Your task to perform on an android device: make emails show in primary in the gmail app Image 0: 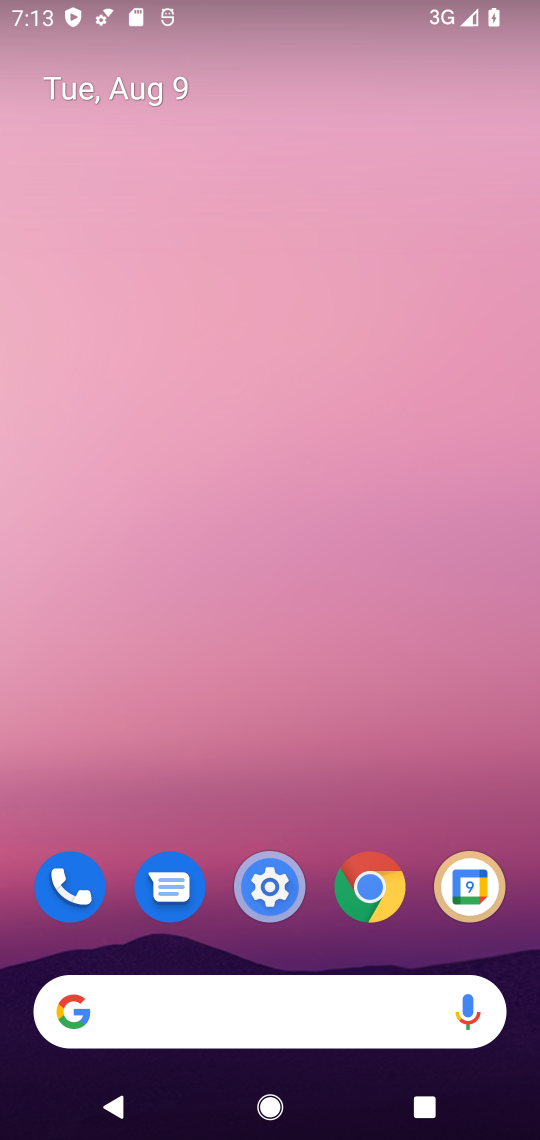
Step 0: drag from (301, 817) to (314, 0)
Your task to perform on an android device: make emails show in primary in the gmail app Image 1: 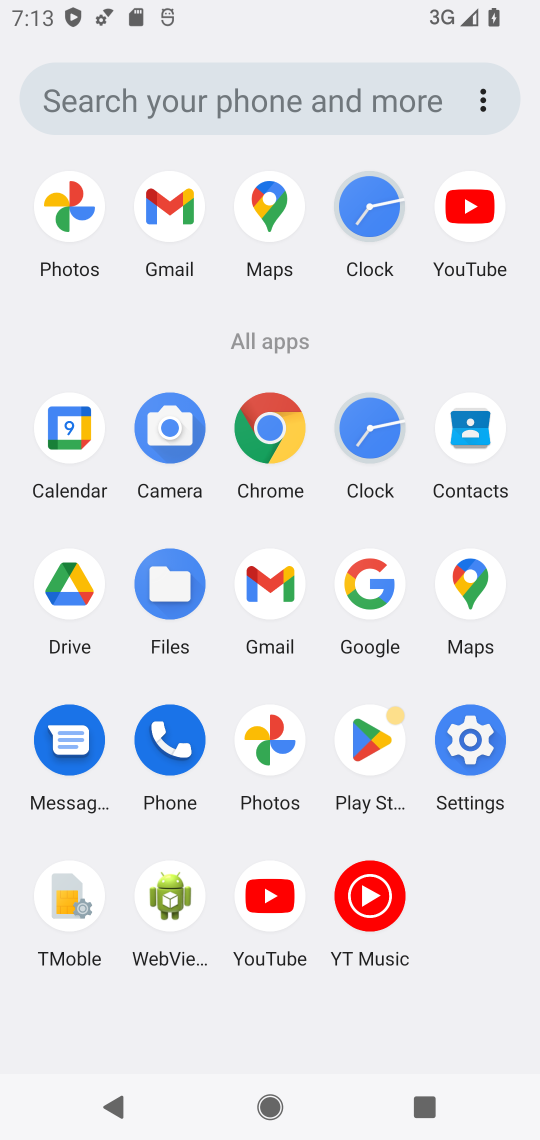
Step 1: click (163, 207)
Your task to perform on an android device: make emails show in primary in the gmail app Image 2: 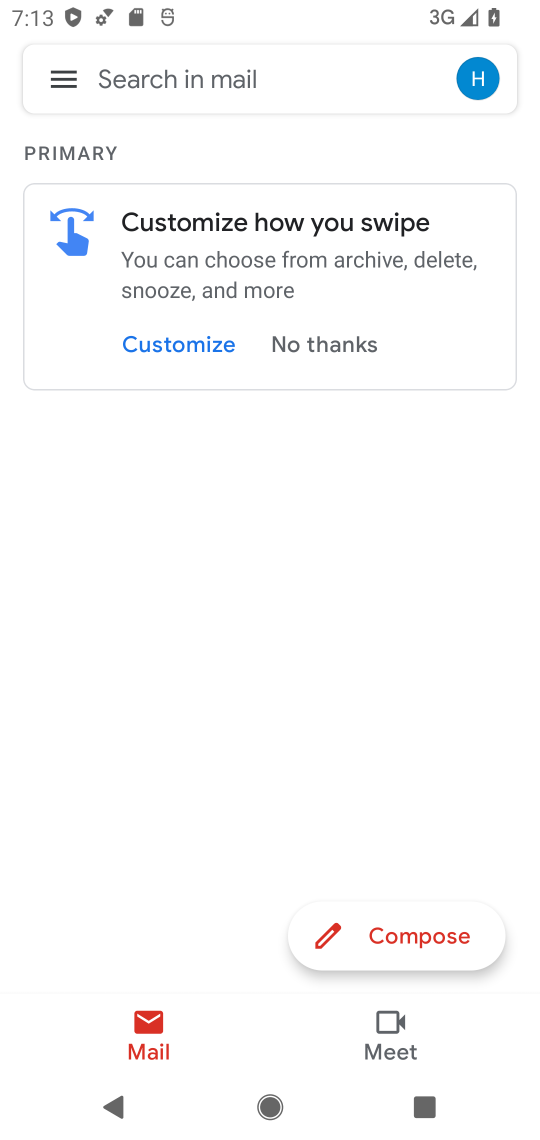
Step 2: click (76, 79)
Your task to perform on an android device: make emails show in primary in the gmail app Image 3: 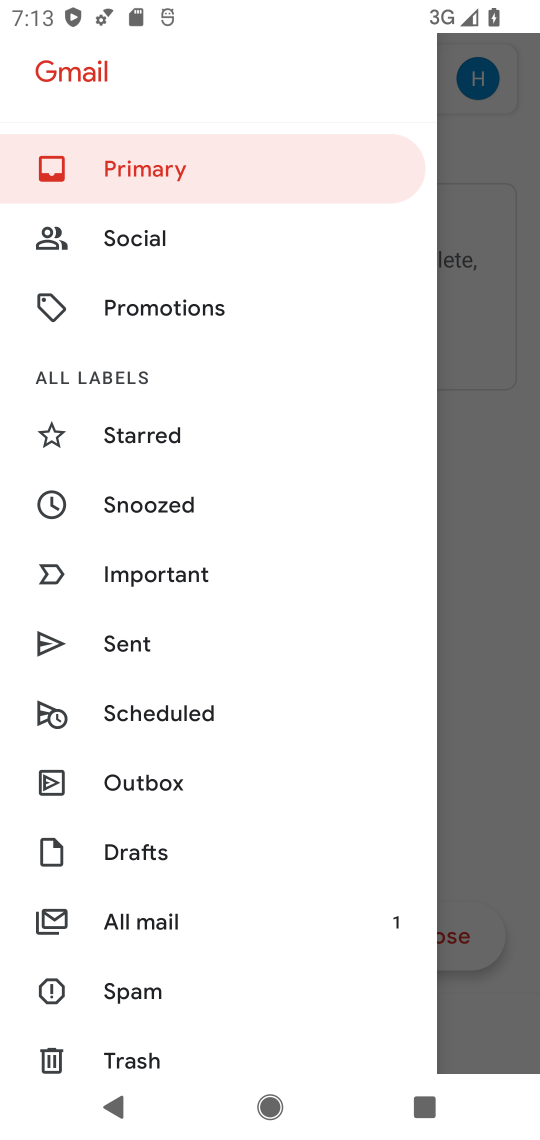
Step 3: drag from (218, 699) to (241, 2)
Your task to perform on an android device: make emails show in primary in the gmail app Image 4: 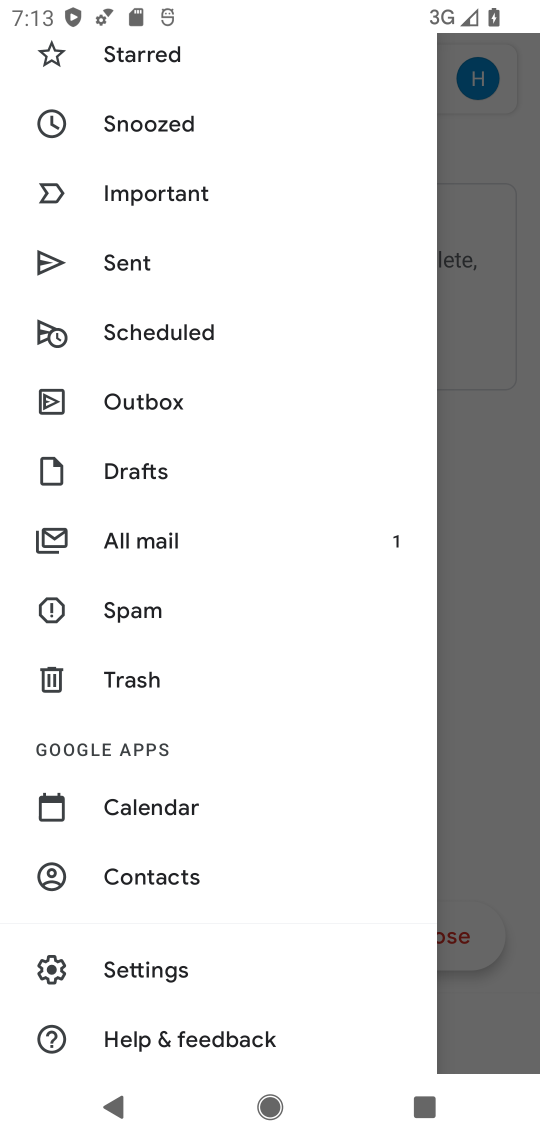
Step 4: click (150, 959)
Your task to perform on an android device: make emails show in primary in the gmail app Image 5: 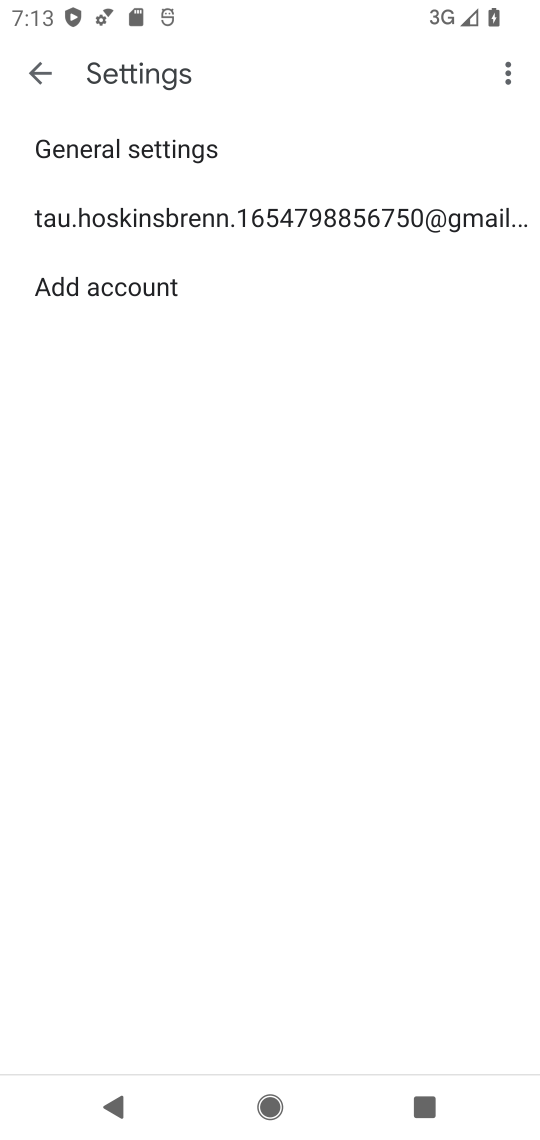
Step 5: click (245, 220)
Your task to perform on an android device: make emails show in primary in the gmail app Image 6: 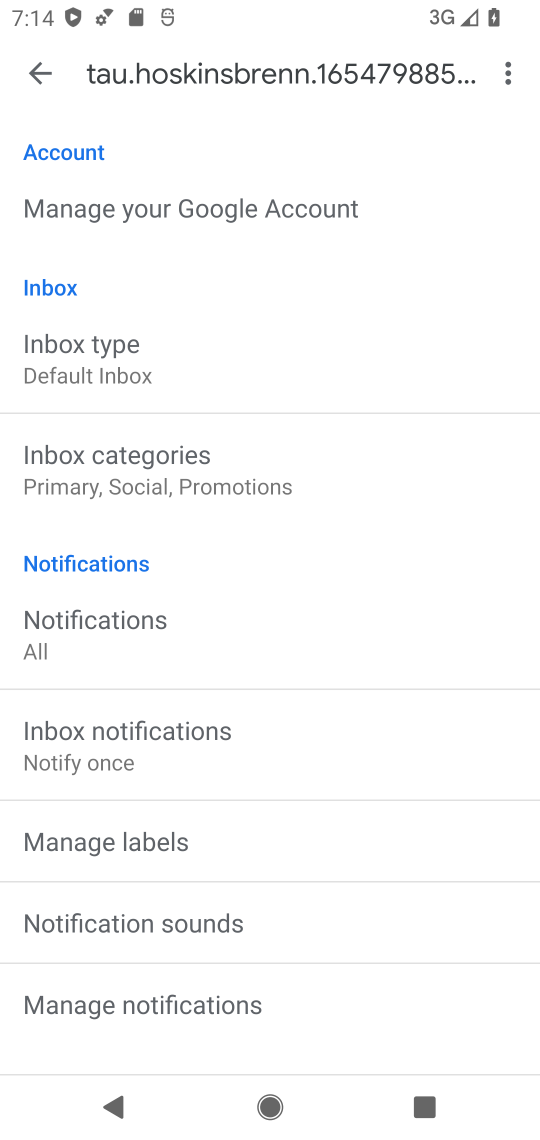
Step 6: click (134, 456)
Your task to perform on an android device: make emails show in primary in the gmail app Image 7: 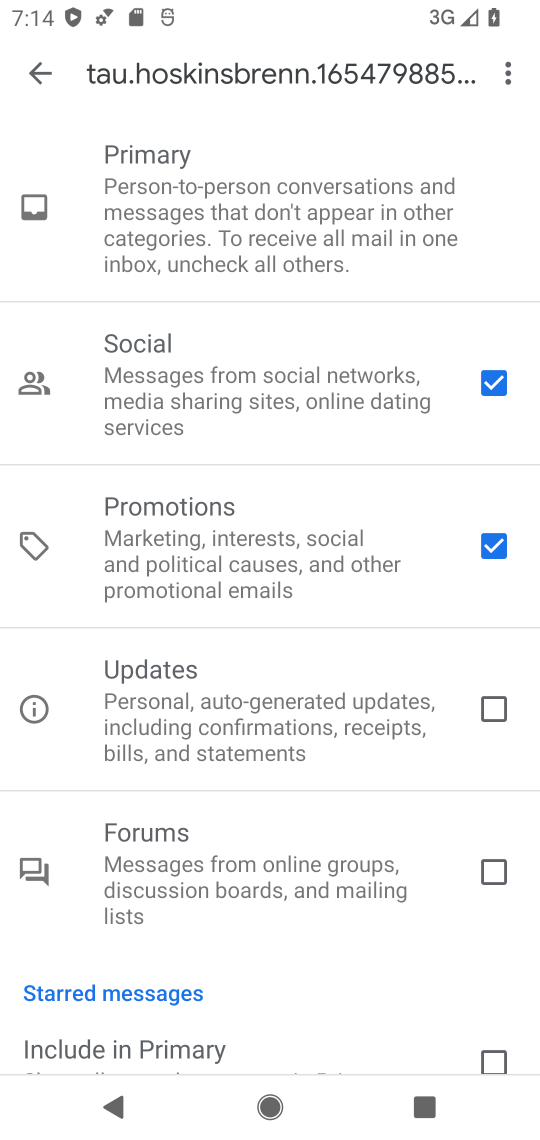
Step 7: click (486, 548)
Your task to perform on an android device: make emails show in primary in the gmail app Image 8: 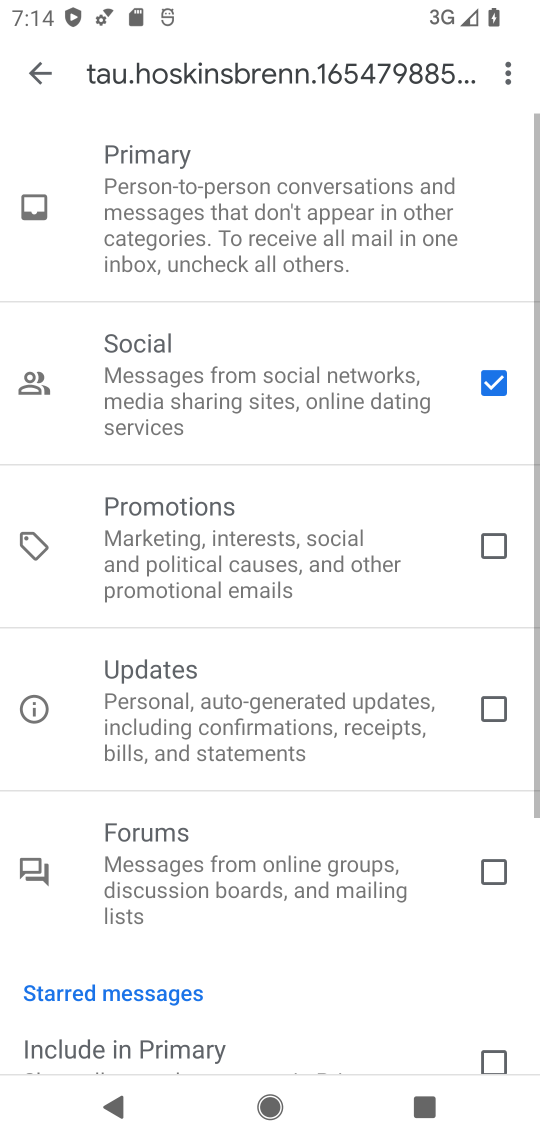
Step 8: click (494, 387)
Your task to perform on an android device: make emails show in primary in the gmail app Image 9: 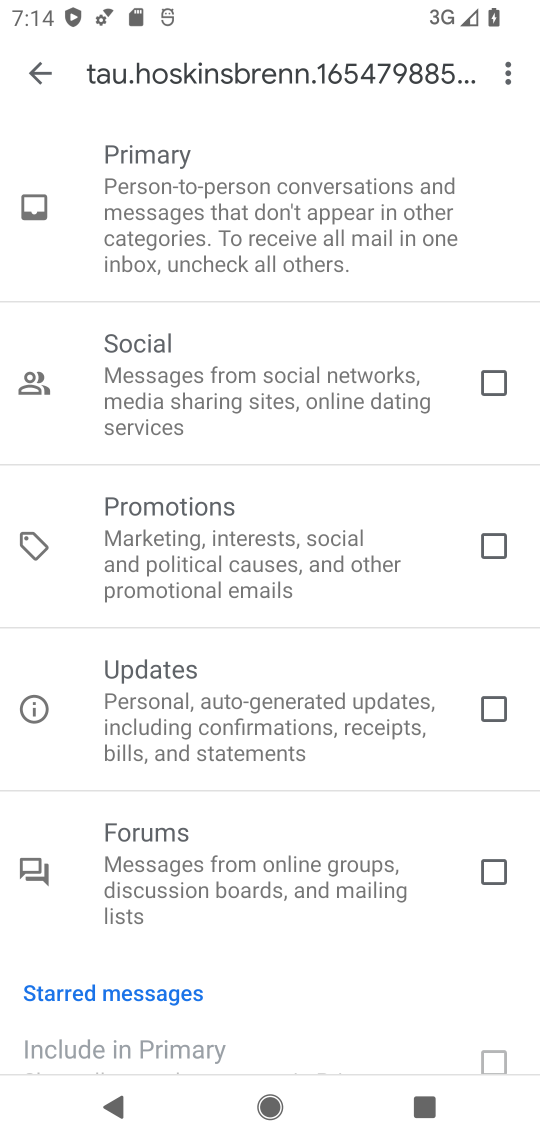
Step 9: click (45, 63)
Your task to perform on an android device: make emails show in primary in the gmail app Image 10: 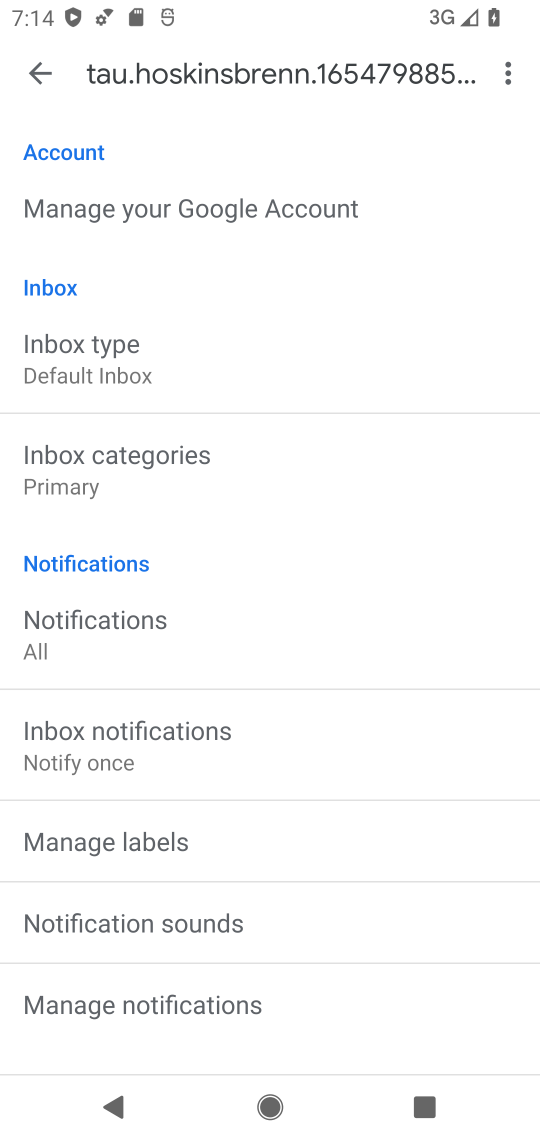
Step 10: click (44, 73)
Your task to perform on an android device: make emails show in primary in the gmail app Image 11: 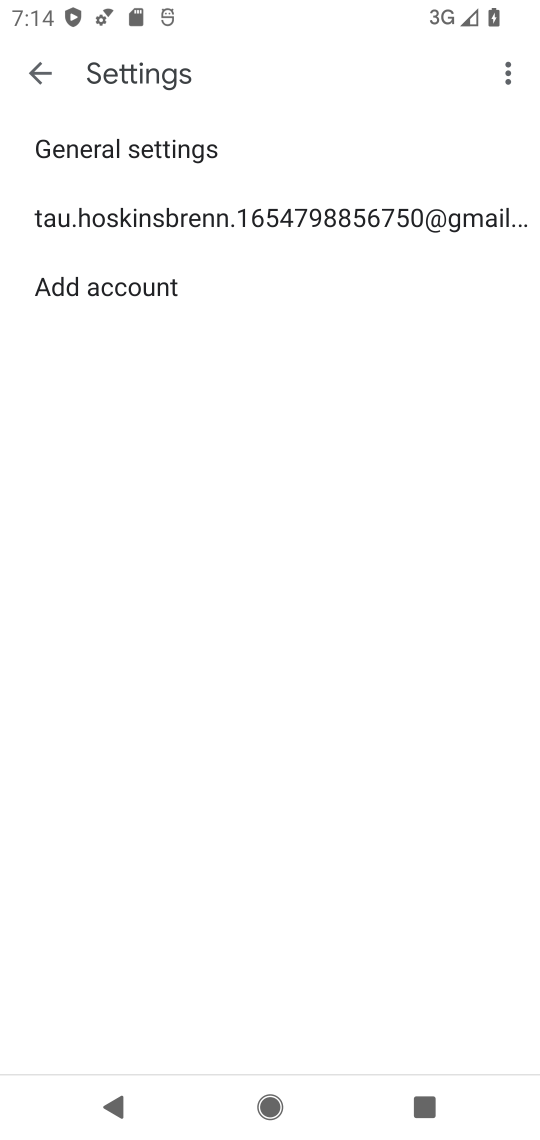
Step 11: click (53, 73)
Your task to perform on an android device: make emails show in primary in the gmail app Image 12: 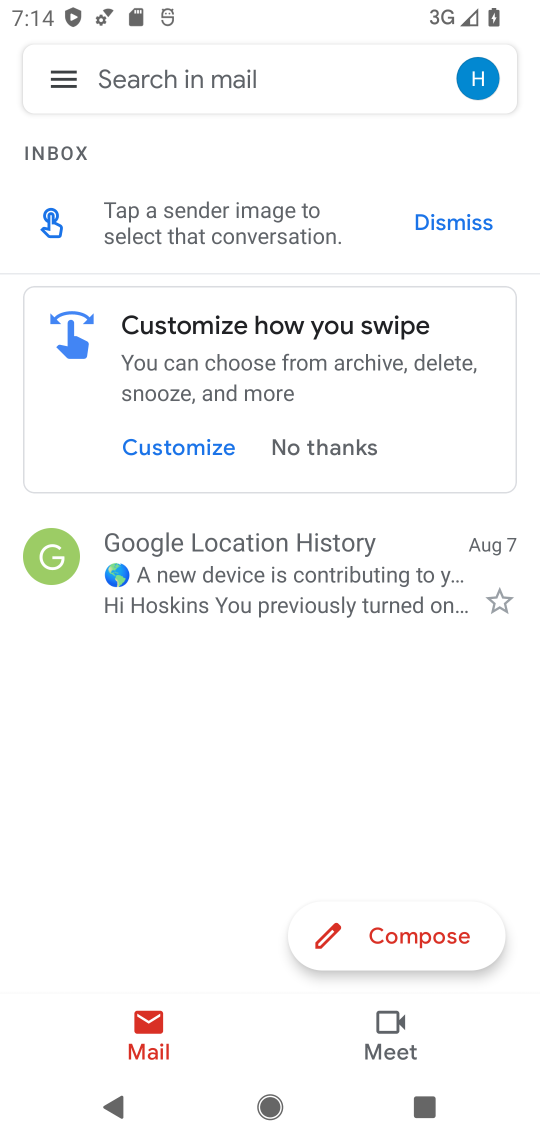
Step 12: task complete